Your task to perform on an android device: Open Google Chrome and click the shortcut for Amazon.com Image 0: 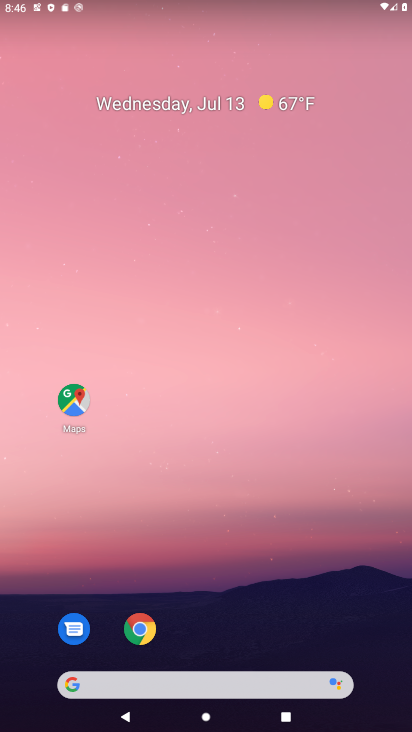
Step 0: click (130, 628)
Your task to perform on an android device: Open Google Chrome and click the shortcut for Amazon.com Image 1: 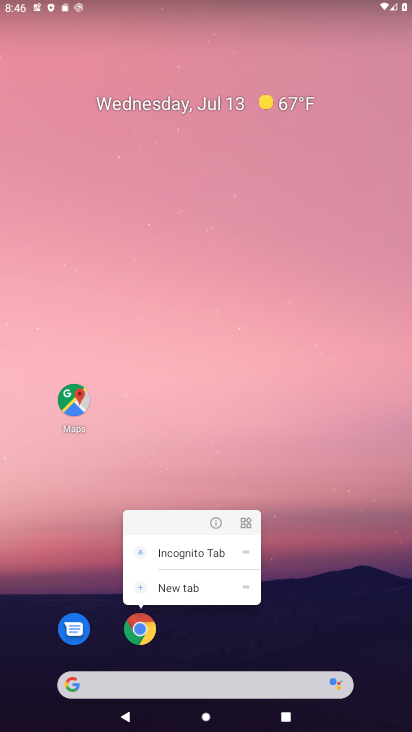
Step 1: click (146, 635)
Your task to perform on an android device: Open Google Chrome and click the shortcut for Amazon.com Image 2: 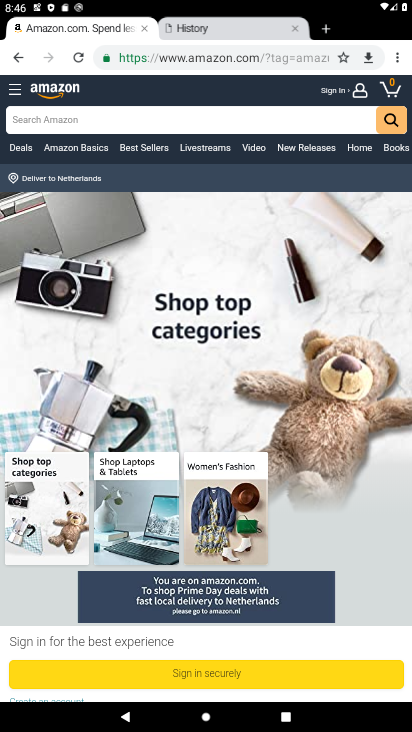
Step 2: click (200, 31)
Your task to perform on an android device: Open Google Chrome and click the shortcut for Amazon.com Image 3: 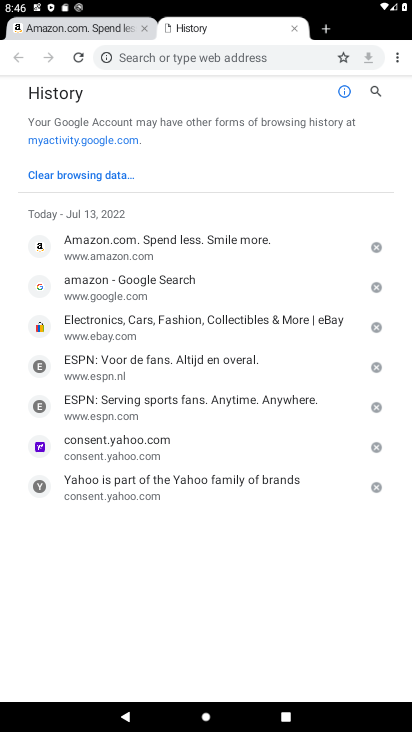
Step 3: press back button
Your task to perform on an android device: Open Google Chrome and click the shortcut for Amazon.com Image 4: 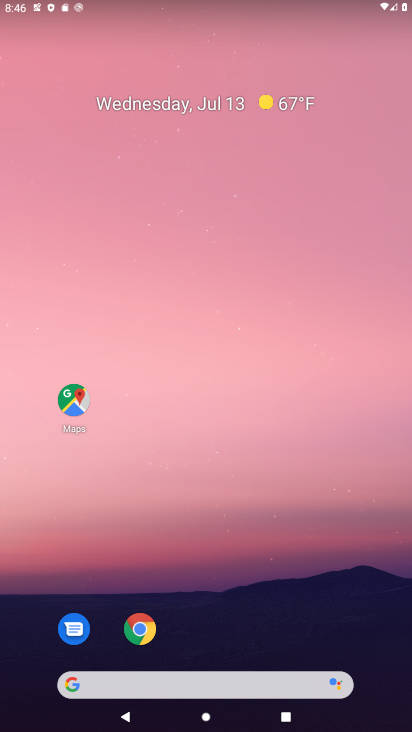
Step 4: click (145, 630)
Your task to perform on an android device: Open Google Chrome and click the shortcut for Amazon.com Image 5: 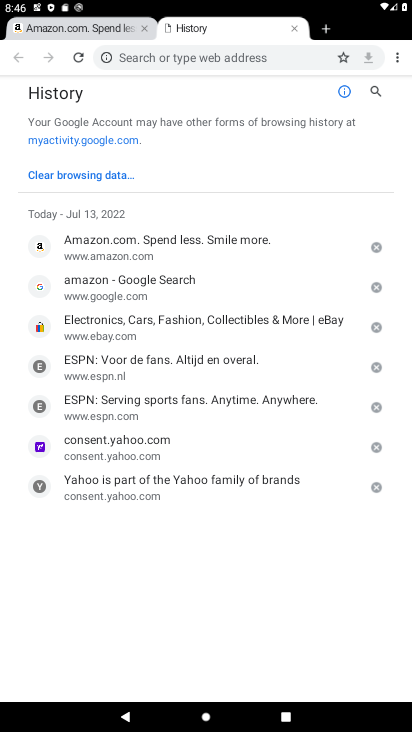
Step 5: click (323, 30)
Your task to perform on an android device: Open Google Chrome and click the shortcut for Amazon.com Image 6: 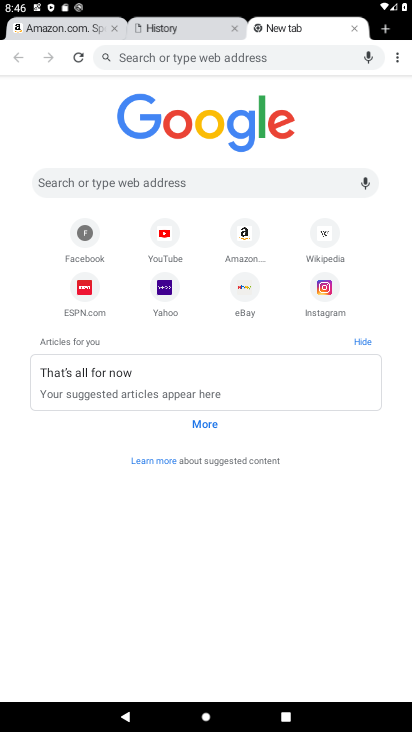
Step 6: click (252, 239)
Your task to perform on an android device: Open Google Chrome and click the shortcut for Amazon.com Image 7: 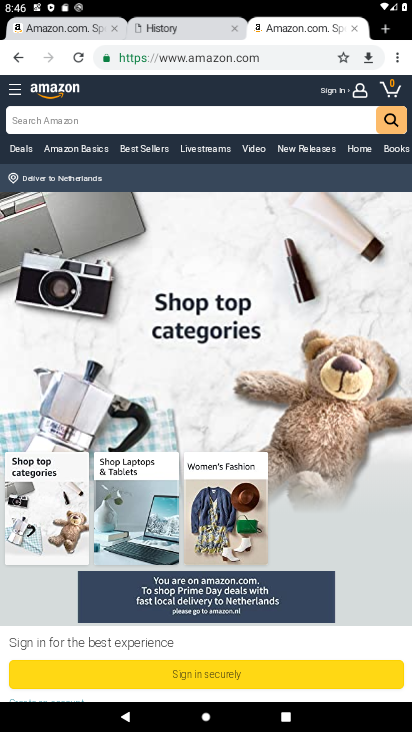
Step 7: task complete